Your task to perform on an android device: open a new tab in the chrome app Image 0: 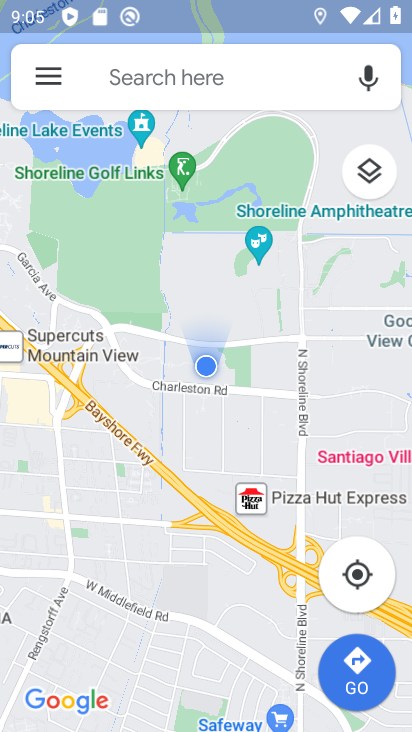
Step 0: press back button
Your task to perform on an android device: open a new tab in the chrome app Image 1: 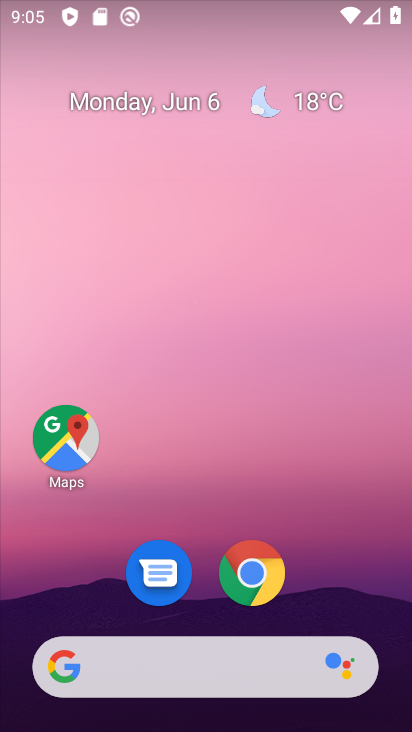
Step 1: click (256, 593)
Your task to perform on an android device: open a new tab in the chrome app Image 2: 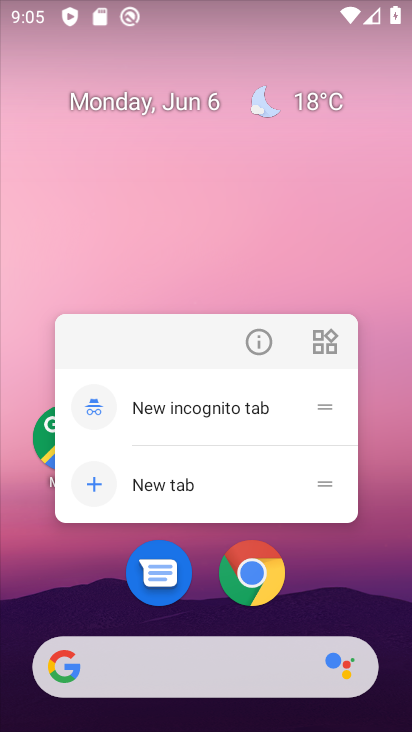
Step 2: click (259, 587)
Your task to perform on an android device: open a new tab in the chrome app Image 3: 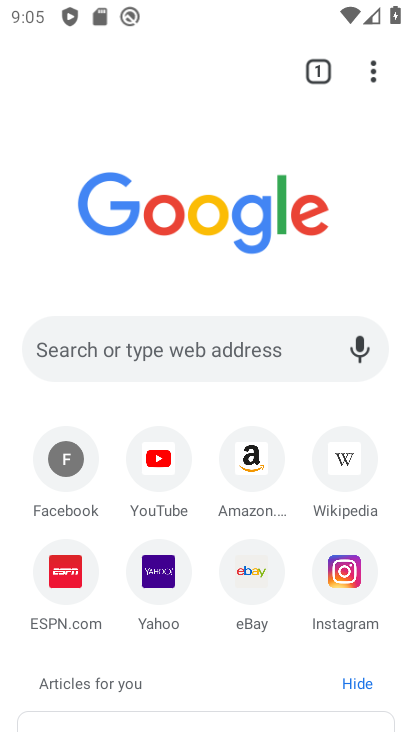
Step 3: click (369, 69)
Your task to perform on an android device: open a new tab in the chrome app Image 4: 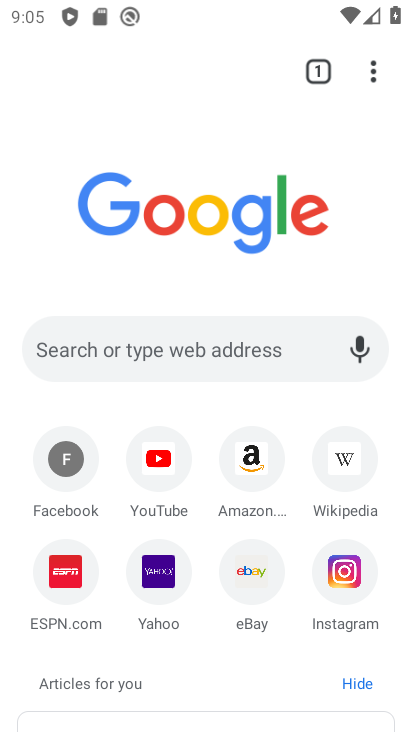
Step 4: task complete